Your task to perform on an android device: Go to battery settings Image 0: 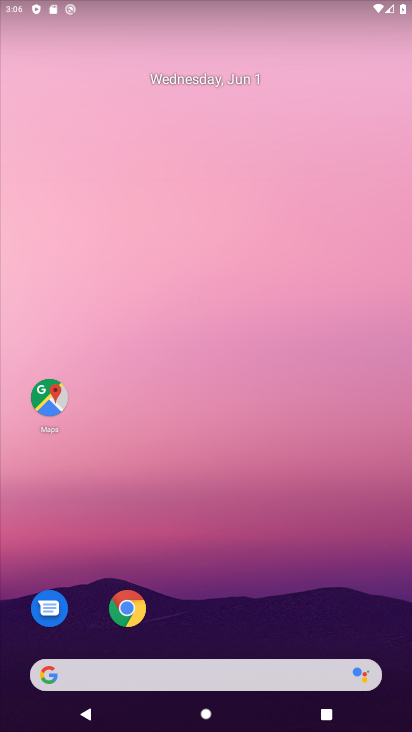
Step 0: drag from (191, 665) to (196, 182)
Your task to perform on an android device: Go to battery settings Image 1: 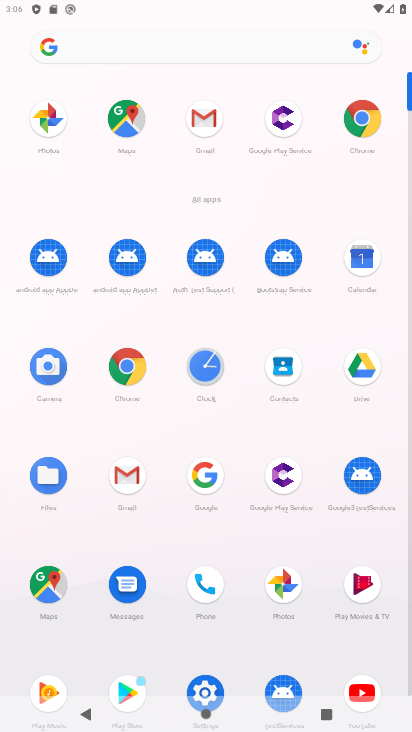
Step 1: click (201, 691)
Your task to perform on an android device: Go to battery settings Image 2: 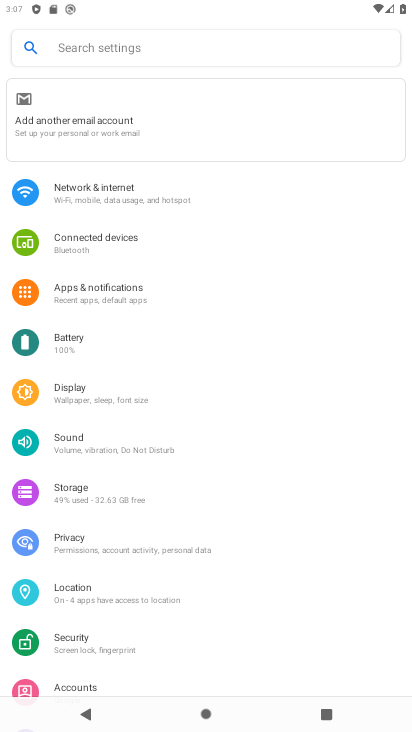
Step 2: click (78, 346)
Your task to perform on an android device: Go to battery settings Image 3: 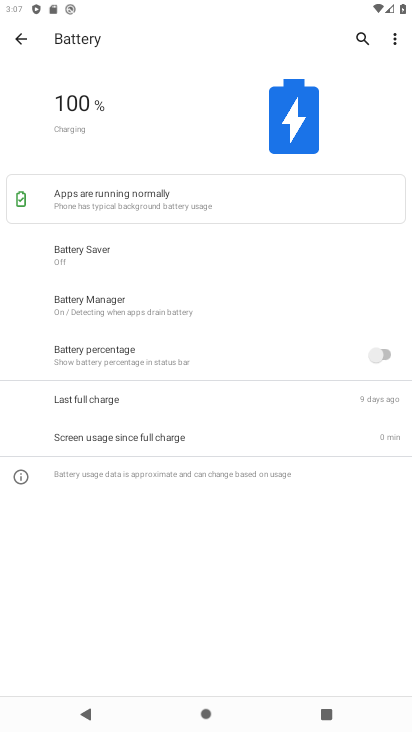
Step 3: task complete